Your task to perform on an android device: uninstall "VLC for Android" Image 0: 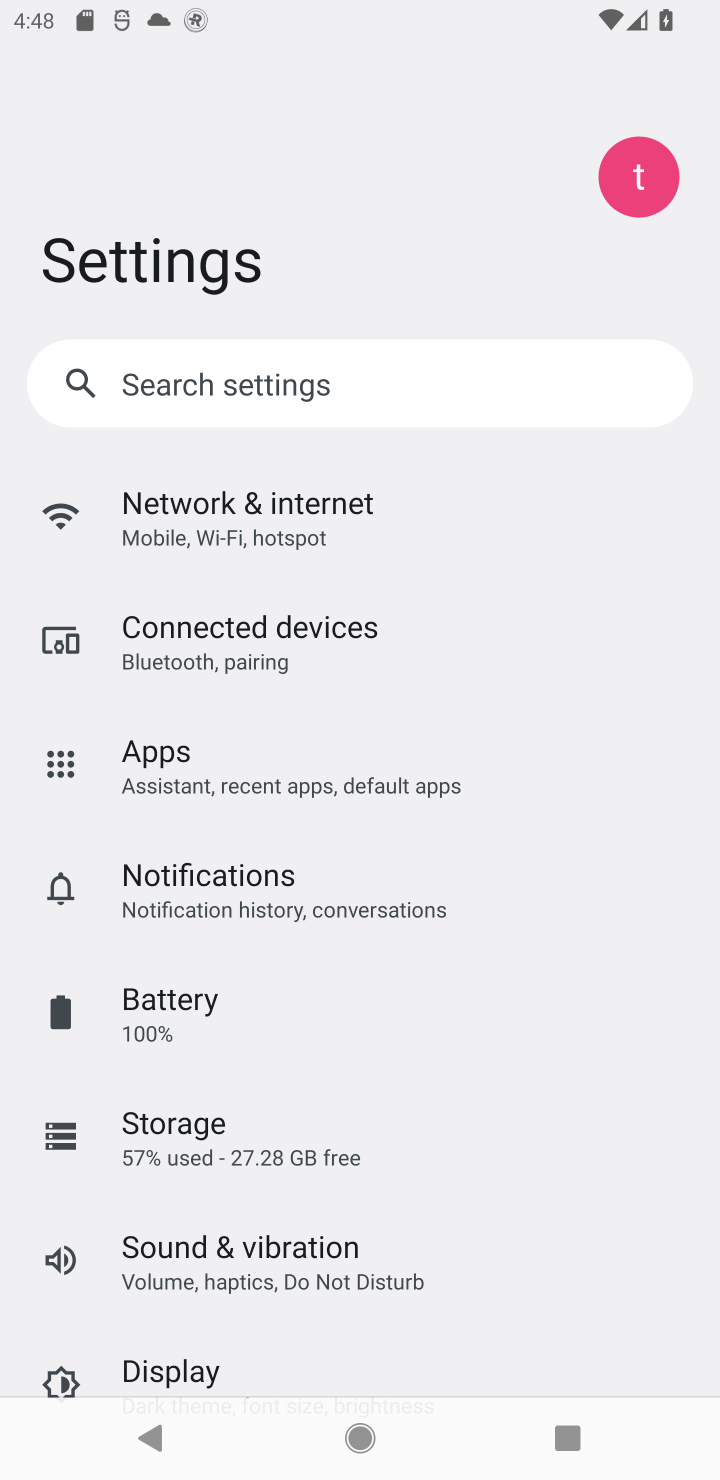
Step 0: press home button
Your task to perform on an android device: uninstall "VLC for Android" Image 1: 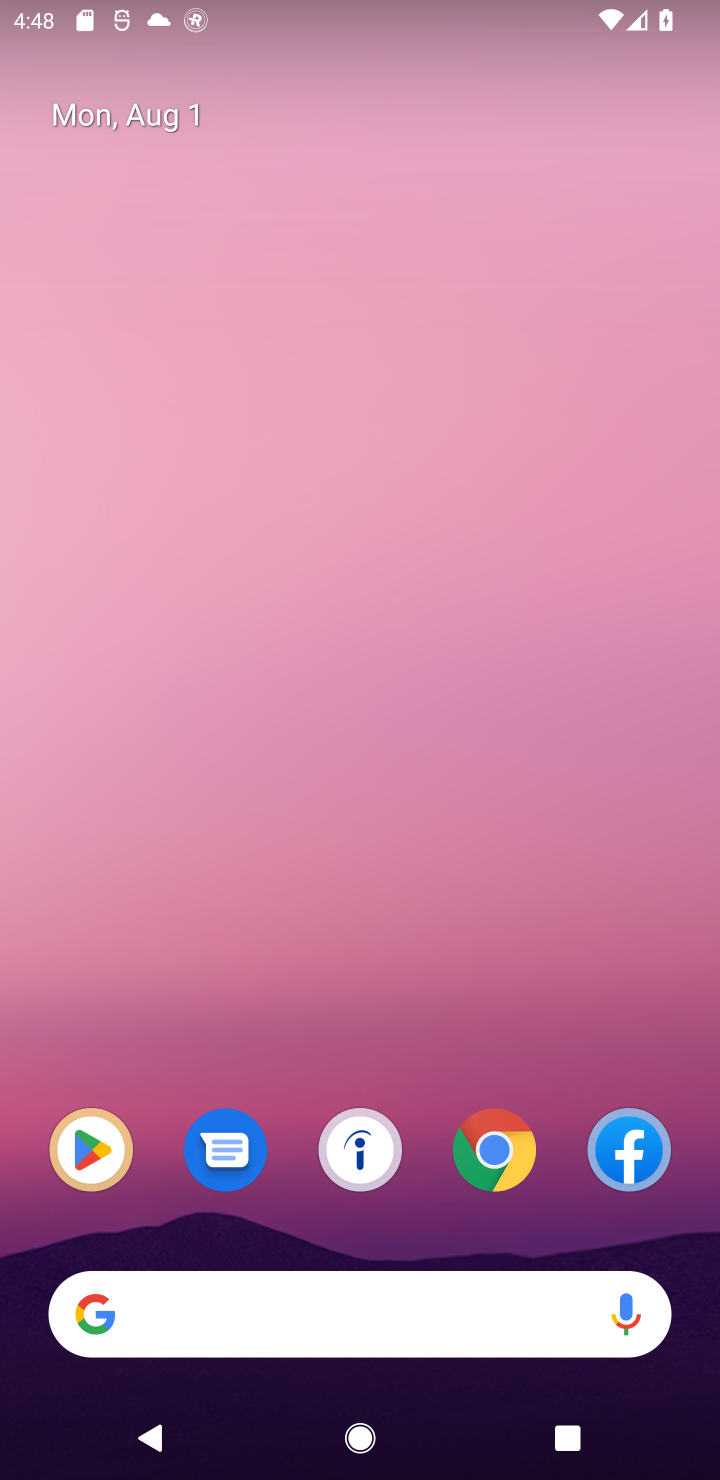
Step 1: click (94, 1182)
Your task to perform on an android device: uninstall "VLC for Android" Image 2: 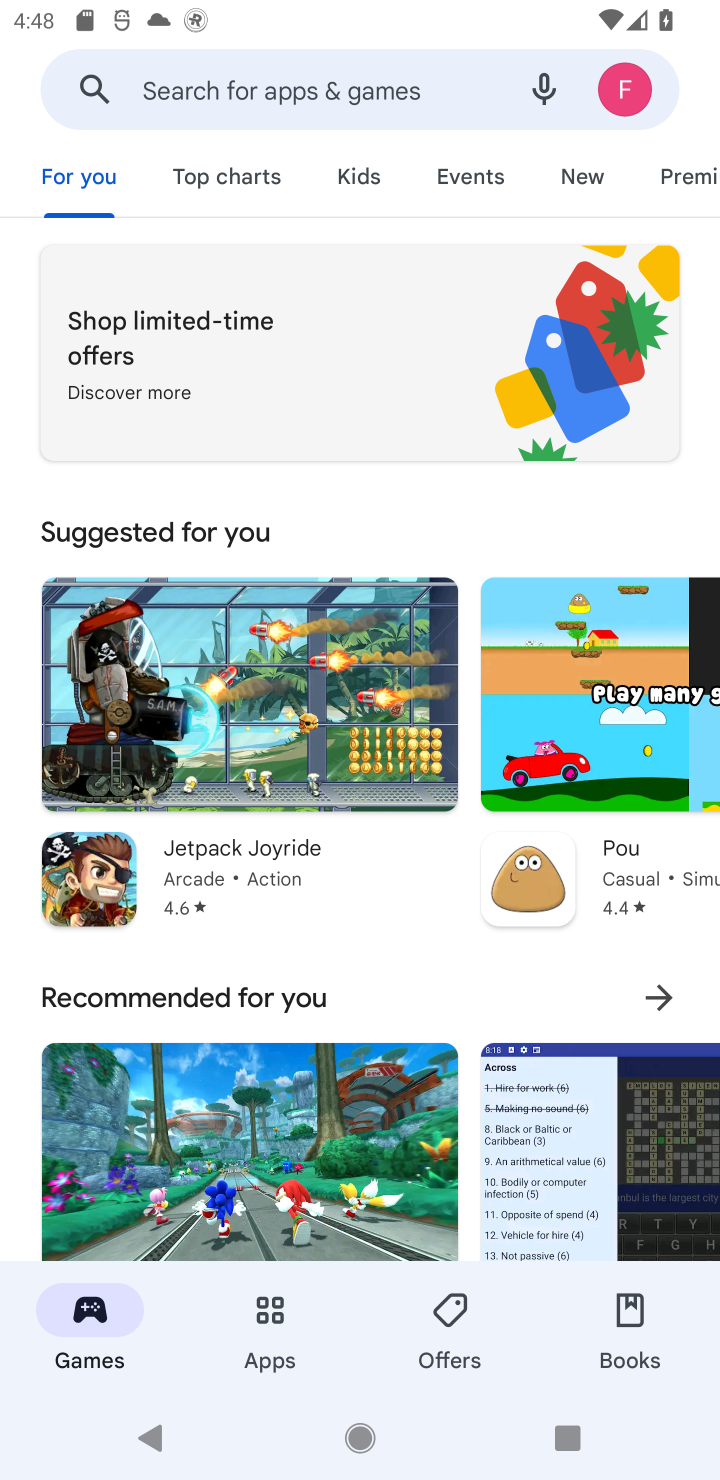
Step 2: click (350, 93)
Your task to perform on an android device: uninstall "VLC for Android" Image 3: 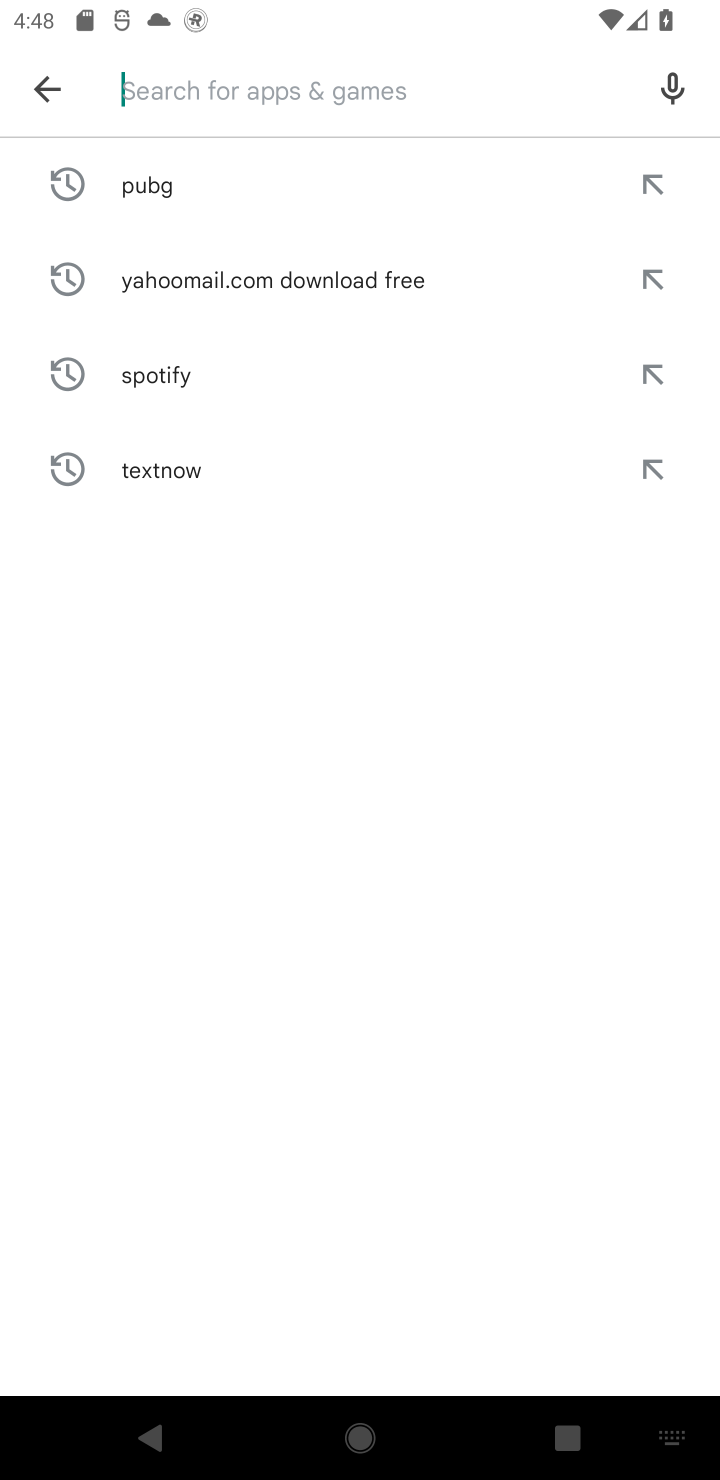
Step 3: type "vlc"
Your task to perform on an android device: uninstall "VLC for Android" Image 4: 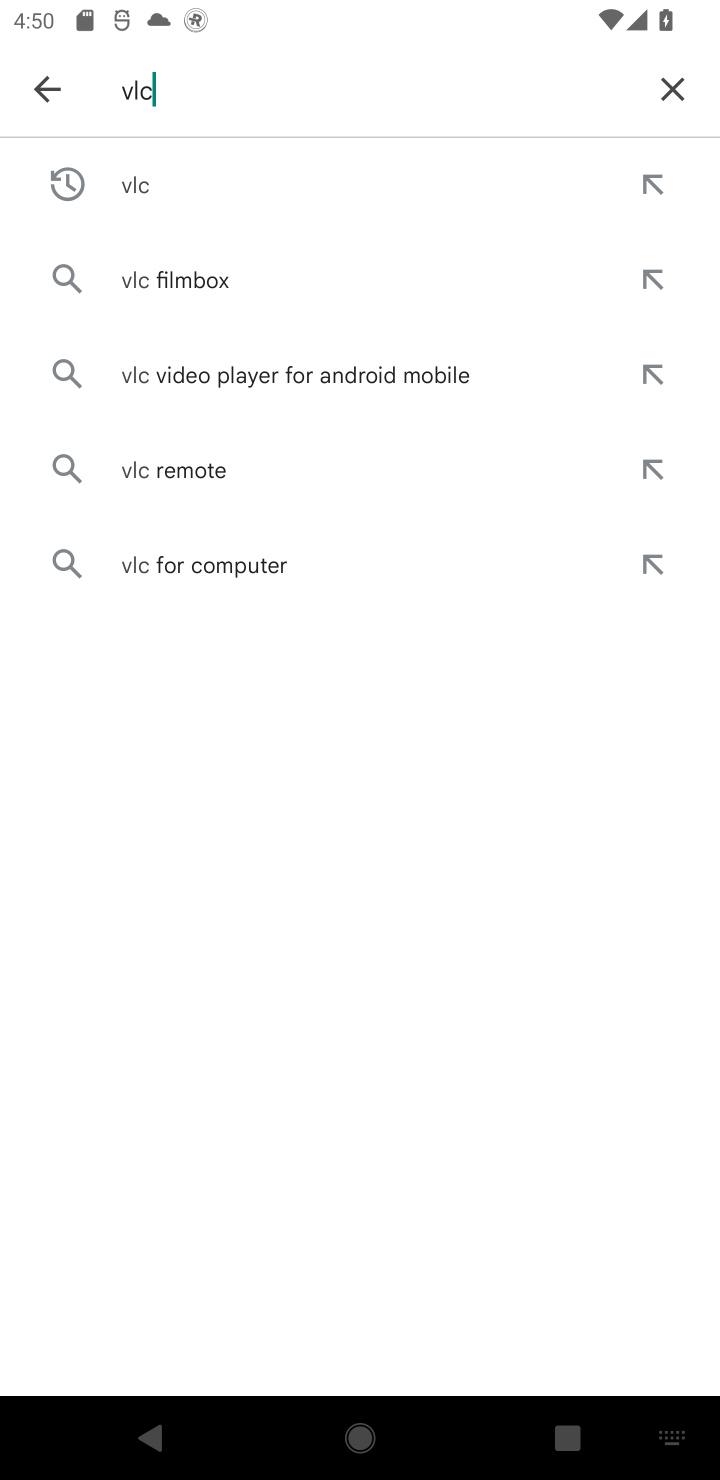
Step 4: click (132, 183)
Your task to perform on an android device: uninstall "VLC for Android" Image 5: 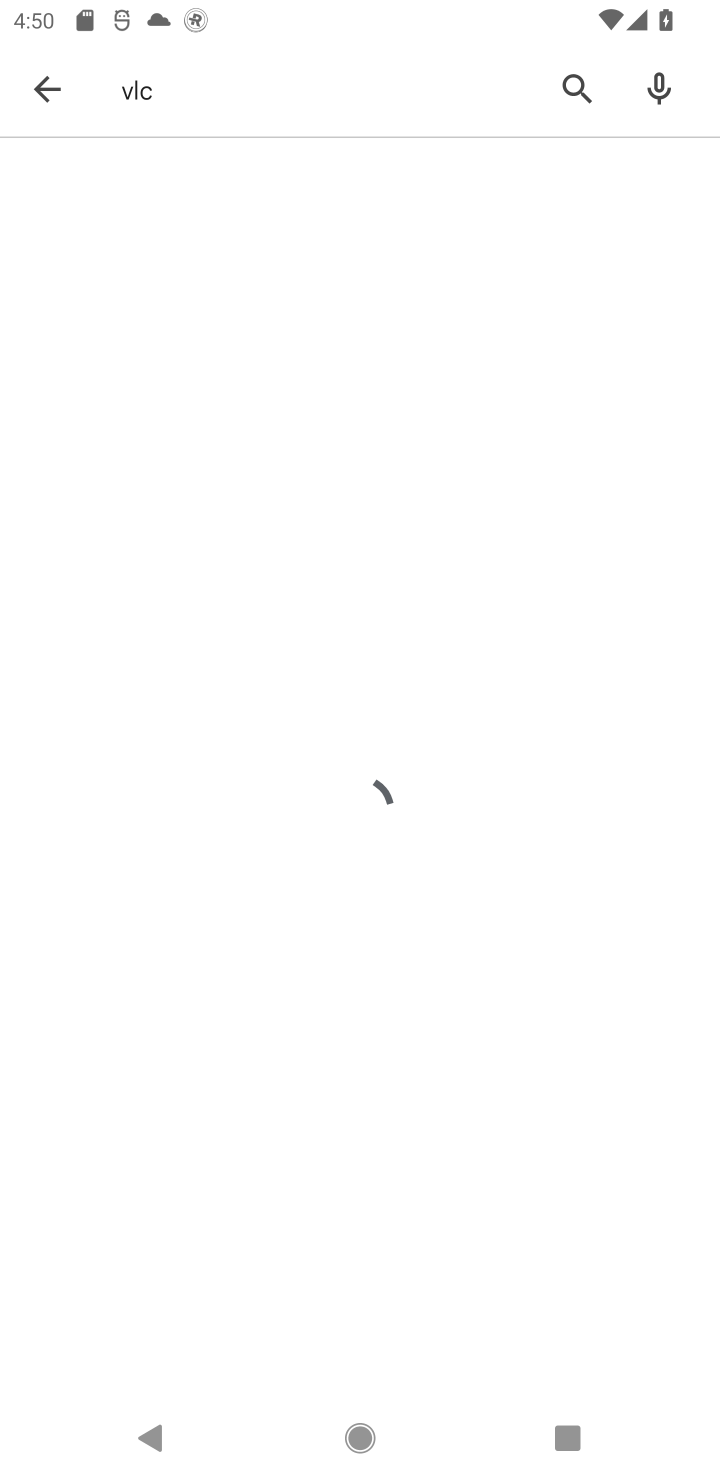
Step 5: task complete